Your task to perform on an android device: allow notifications from all sites in the chrome app Image 0: 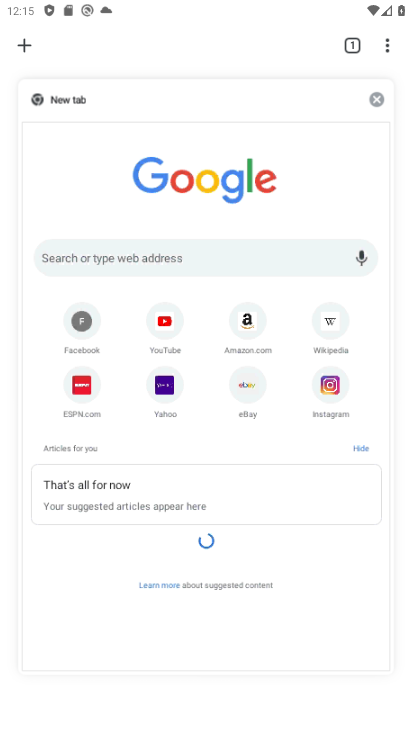
Step 0: click (382, 53)
Your task to perform on an android device: allow notifications from all sites in the chrome app Image 1: 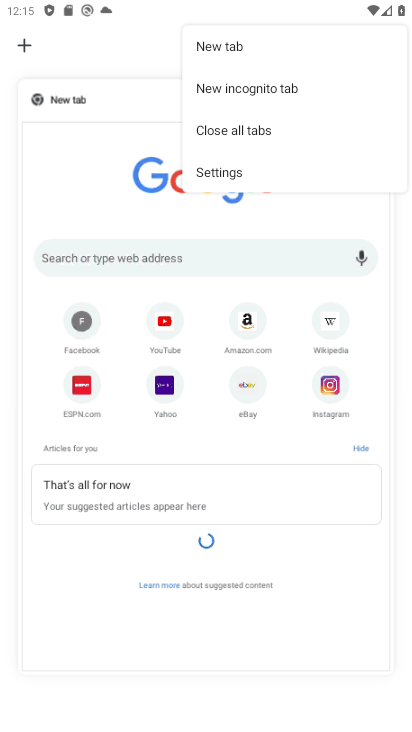
Step 1: click (230, 171)
Your task to perform on an android device: allow notifications from all sites in the chrome app Image 2: 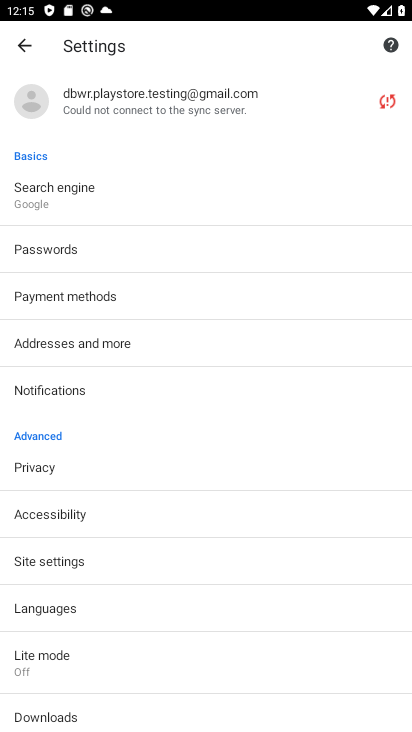
Step 2: click (55, 558)
Your task to perform on an android device: allow notifications from all sites in the chrome app Image 3: 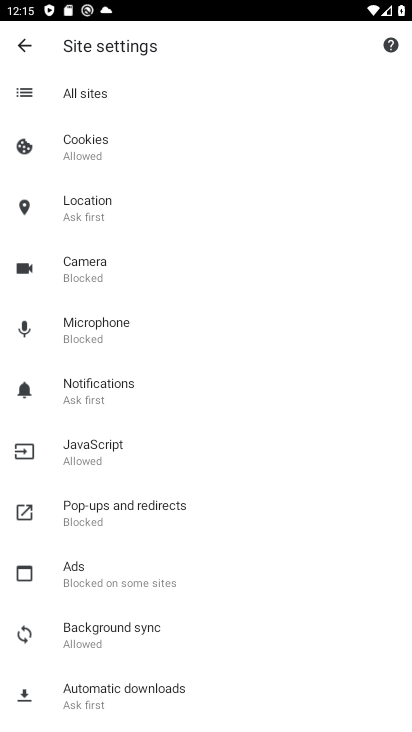
Step 3: click (117, 400)
Your task to perform on an android device: allow notifications from all sites in the chrome app Image 4: 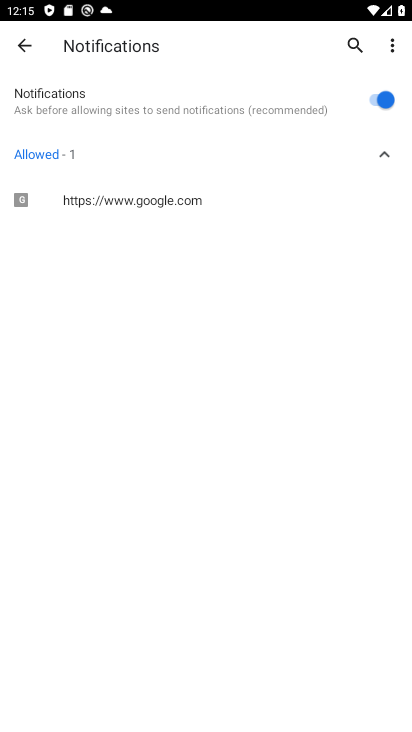
Step 4: task complete